Your task to perform on an android device: open app "Expedia: Hotels, Flights & Car" (install if not already installed) Image 0: 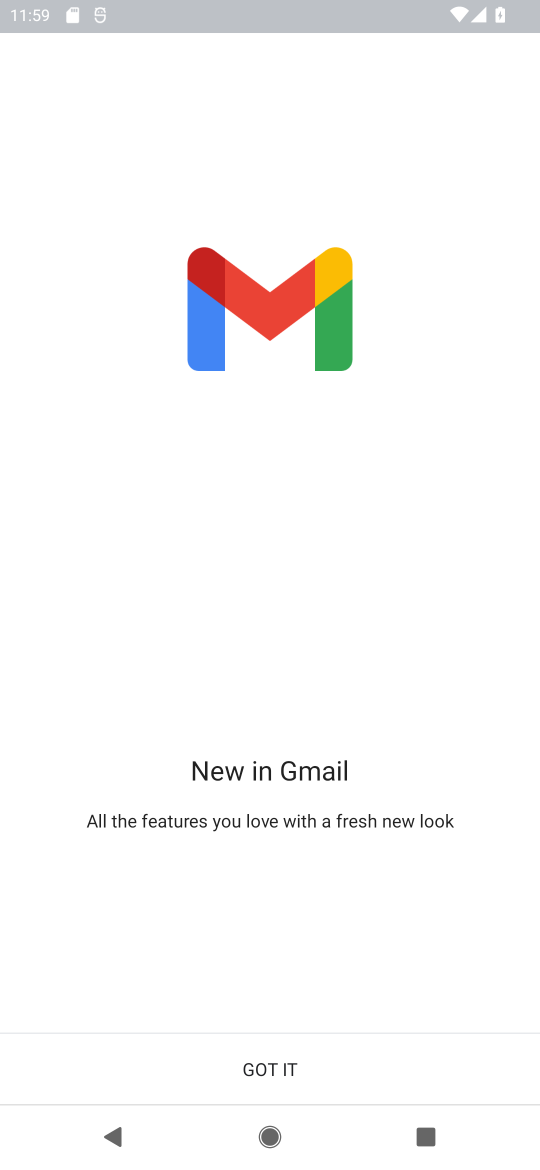
Step 0: press home button
Your task to perform on an android device: open app "Expedia: Hotels, Flights & Car" (install if not already installed) Image 1: 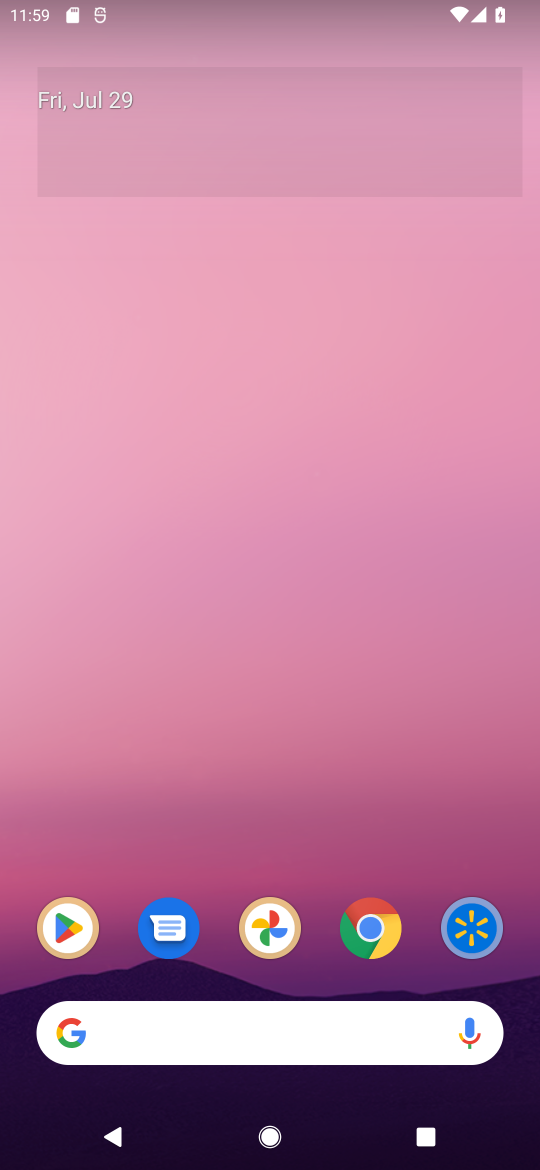
Step 1: drag from (377, 809) to (277, 0)
Your task to perform on an android device: open app "Expedia: Hotels, Flights & Car" (install if not already installed) Image 2: 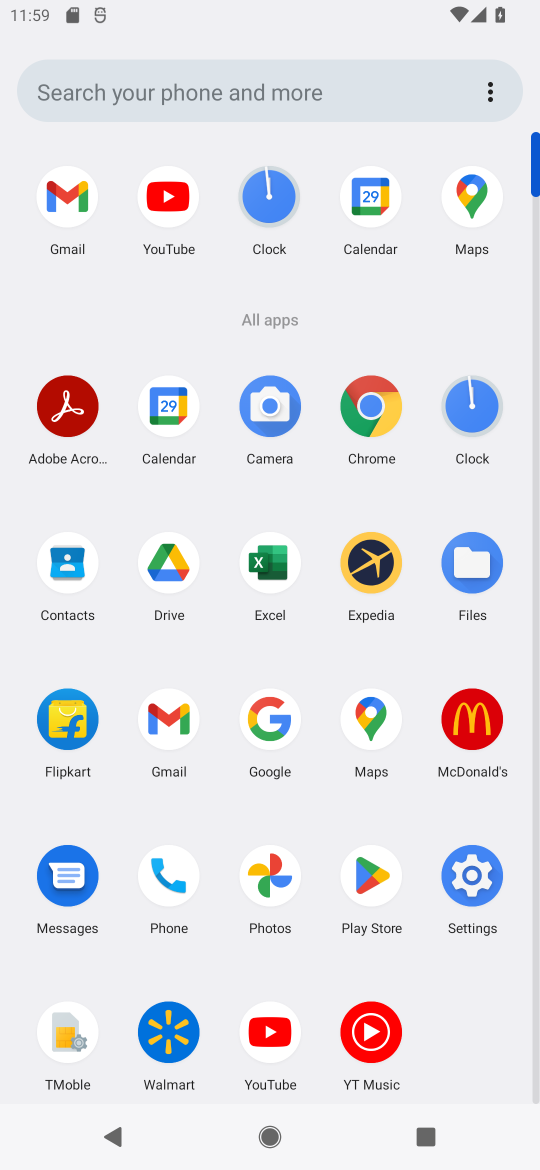
Step 2: click (386, 871)
Your task to perform on an android device: open app "Expedia: Hotels, Flights & Car" (install if not already installed) Image 3: 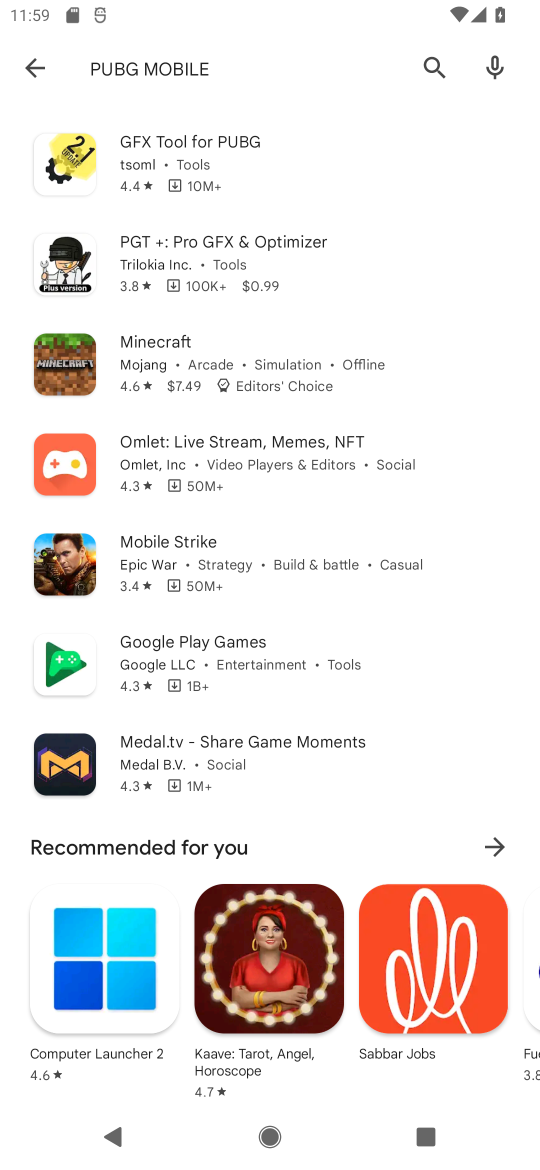
Step 3: click (435, 61)
Your task to perform on an android device: open app "Expedia: Hotels, Flights & Car" (install if not already installed) Image 4: 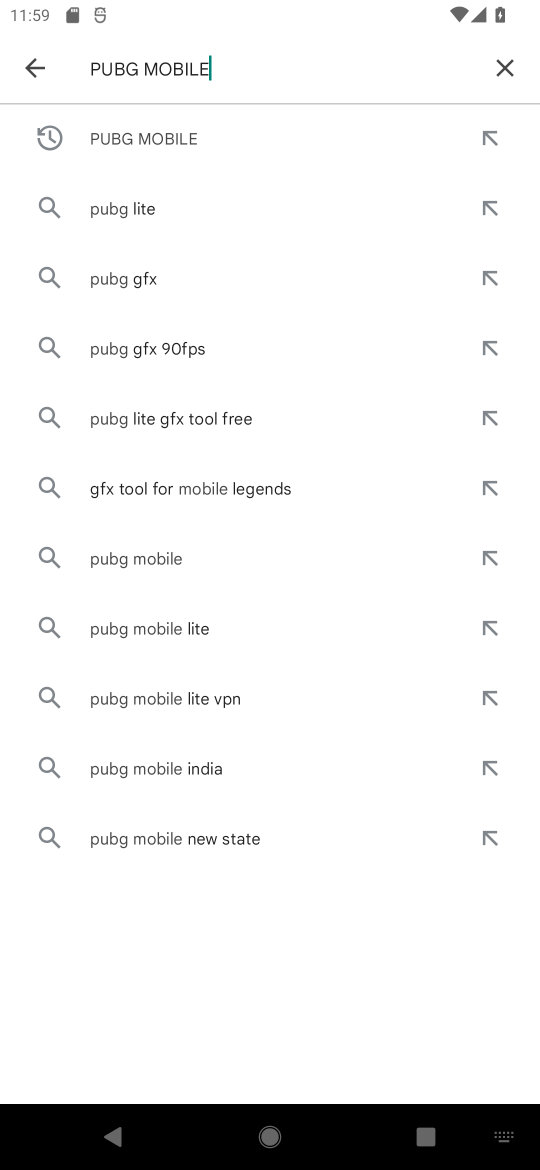
Step 4: click (502, 63)
Your task to perform on an android device: open app "Expedia: Hotels, Flights & Car" (install if not already installed) Image 5: 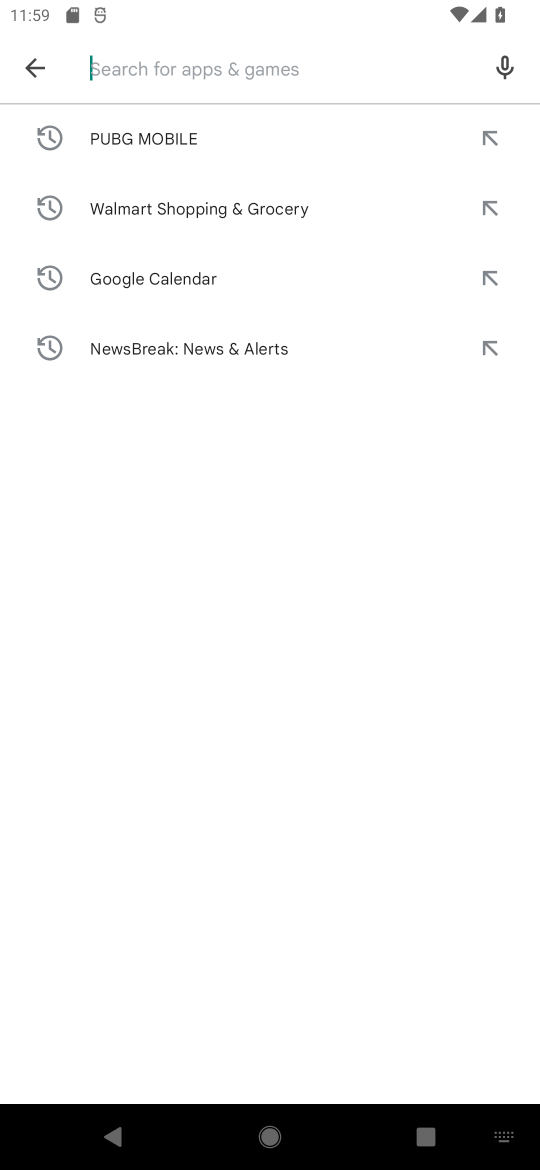
Step 5: type "Expedia: Hotels, Flights & Car"
Your task to perform on an android device: open app "Expedia: Hotels, Flights & Car" (install if not already installed) Image 6: 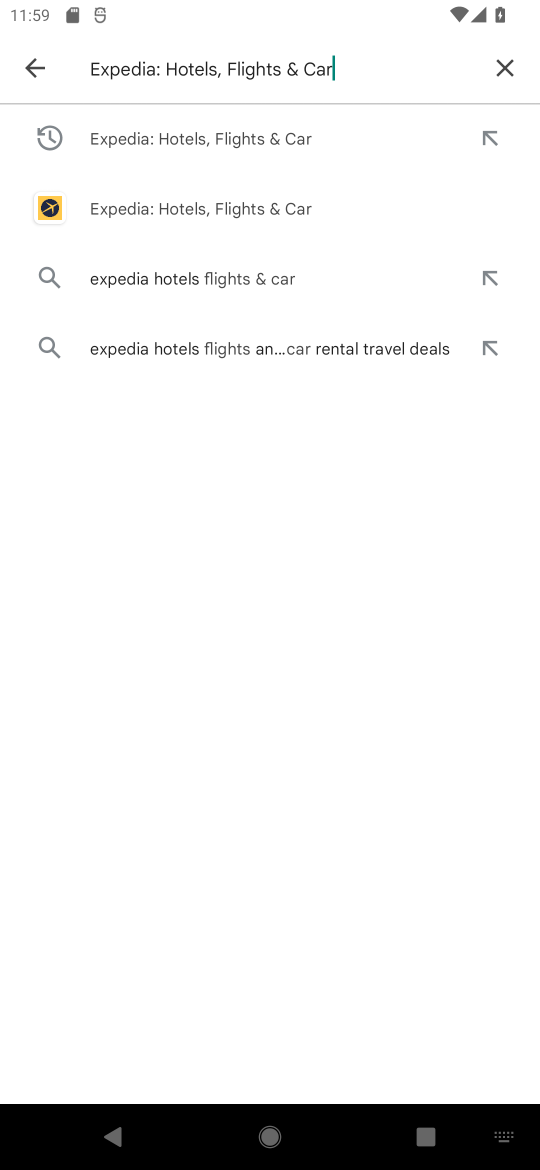
Step 6: press enter
Your task to perform on an android device: open app "Expedia: Hotels, Flights & Car" (install if not already installed) Image 7: 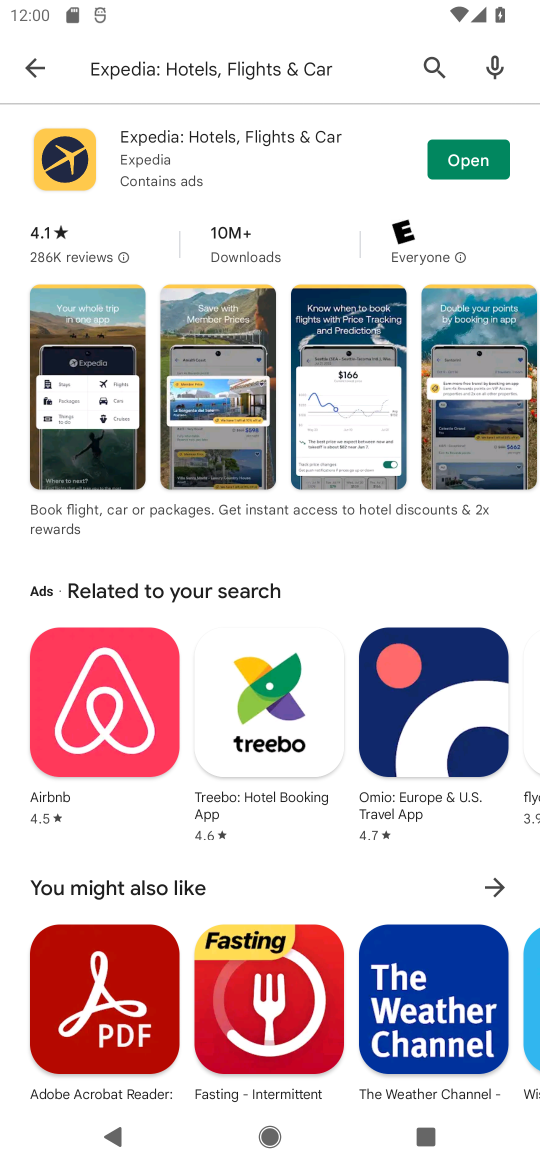
Step 7: click (478, 163)
Your task to perform on an android device: open app "Expedia: Hotels, Flights & Car" (install if not already installed) Image 8: 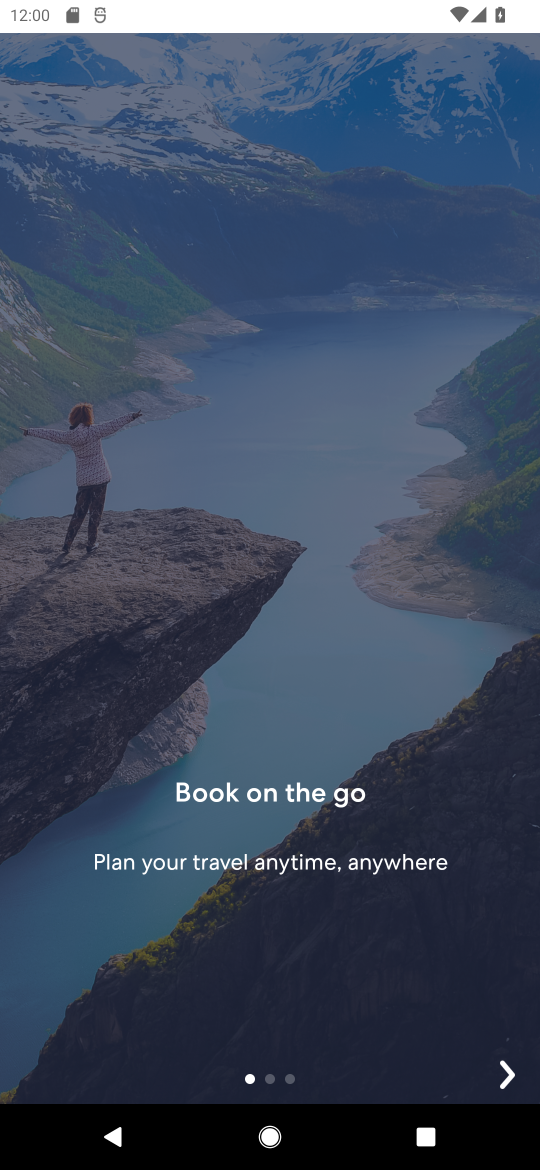
Step 8: click (493, 1077)
Your task to perform on an android device: open app "Expedia: Hotels, Flights & Car" (install if not already installed) Image 9: 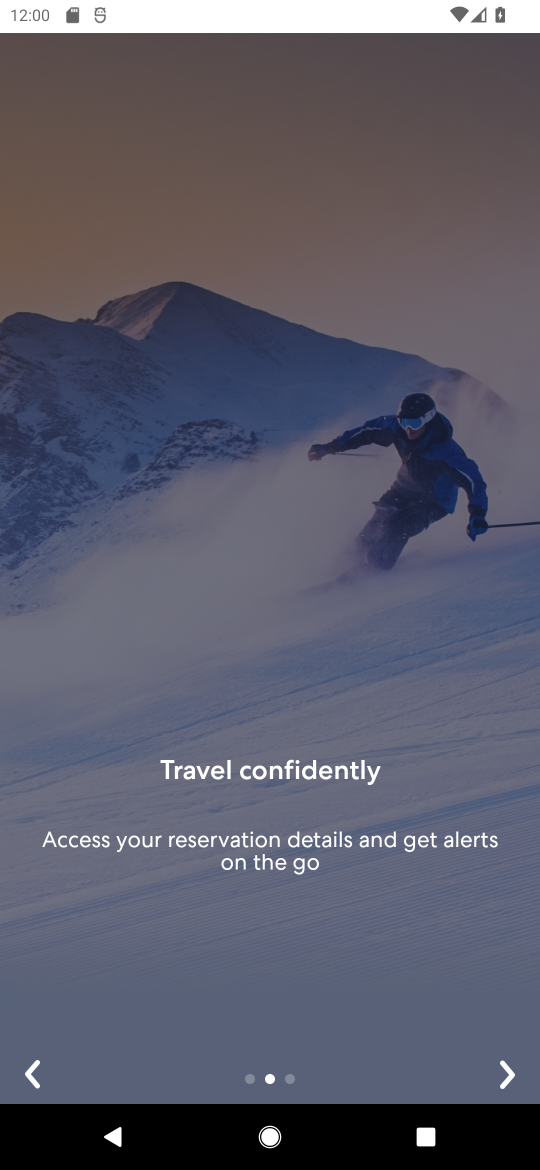
Step 9: click (509, 1076)
Your task to perform on an android device: open app "Expedia: Hotels, Flights & Car" (install if not already installed) Image 10: 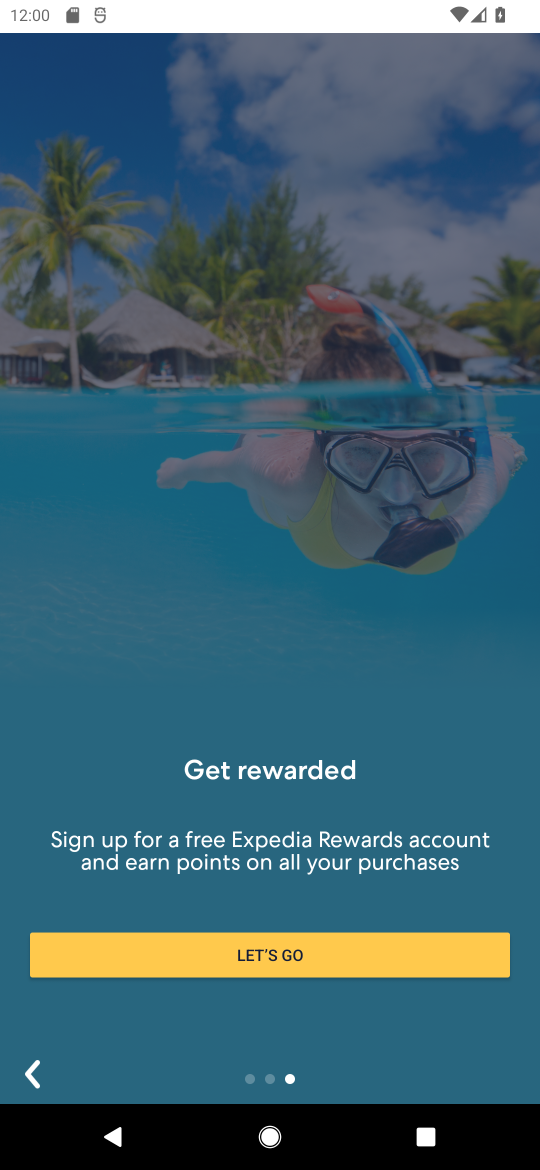
Step 10: click (398, 954)
Your task to perform on an android device: open app "Expedia: Hotels, Flights & Car" (install if not already installed) Image 11: 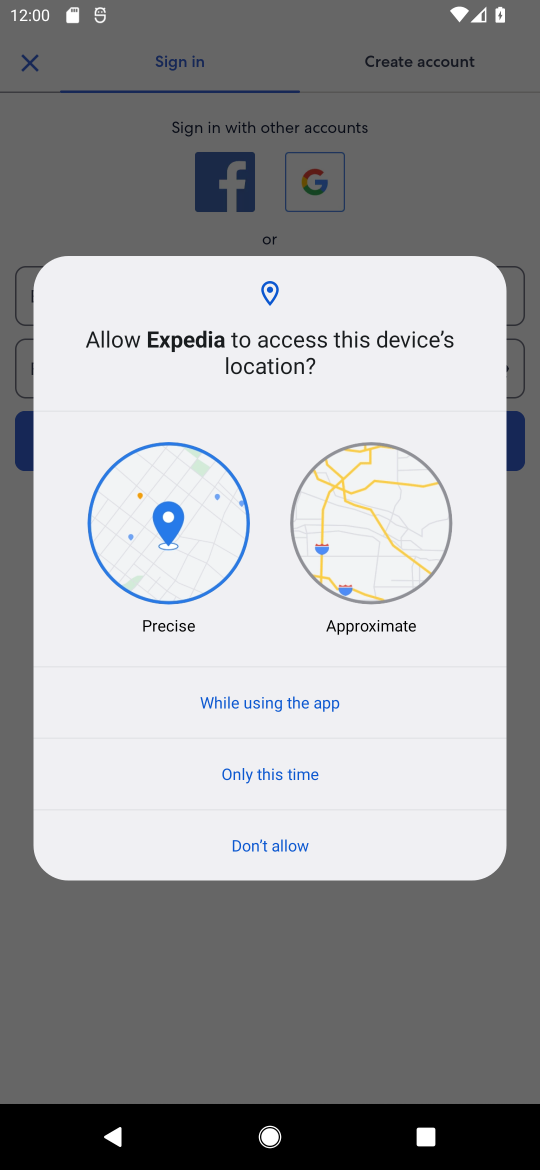
Step 11: task complete